Your task to perform on an android device: open a new tab in the chrome app Image 0: 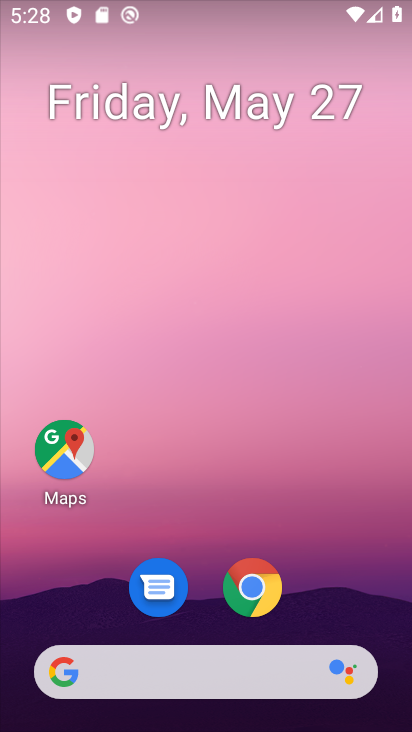
Step 0: click (254, 595)
Your task to perform on an android device: open a new tab in the chrome app Image 1: 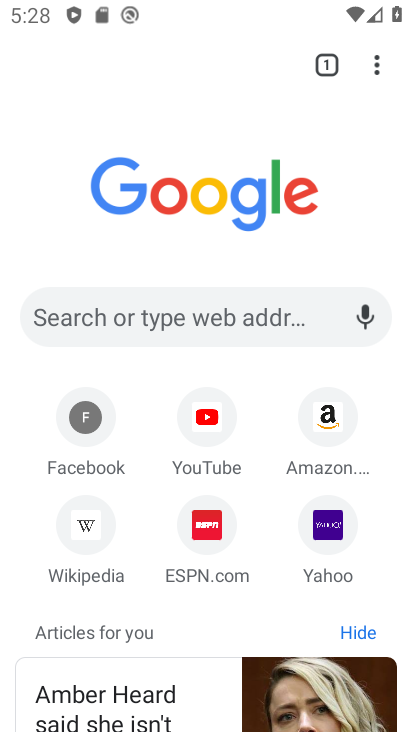
Step 1: task complete